Your task to perform on an android device: What's the weather today? Image 0: 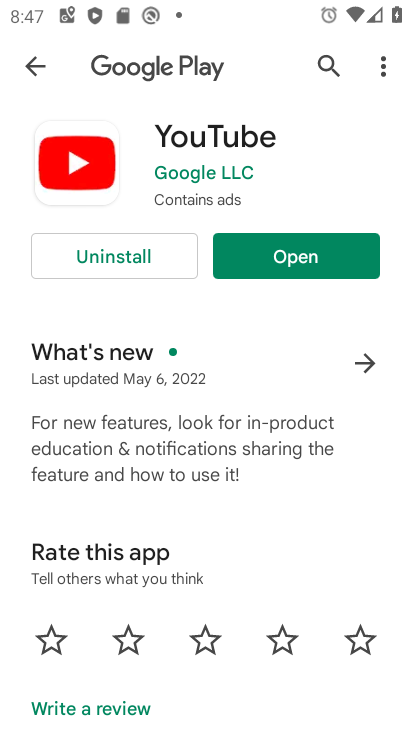
Step 0: press home button
Your task to perform on an android device: What's the weather today? Image 1: 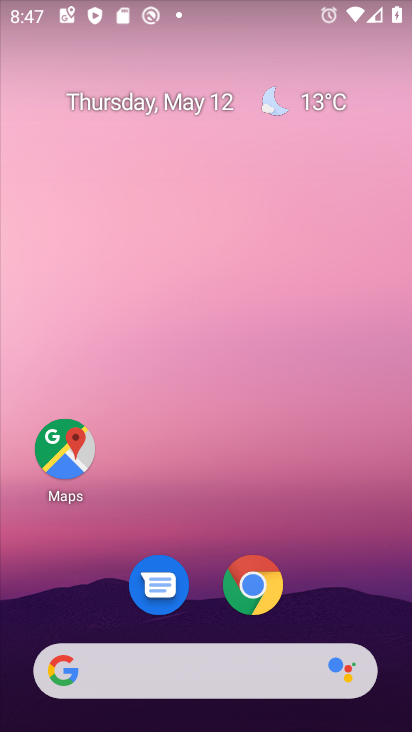
Step 1: click (302, 98)
Your task to perform on an android device: What's the weather today? Image 2: 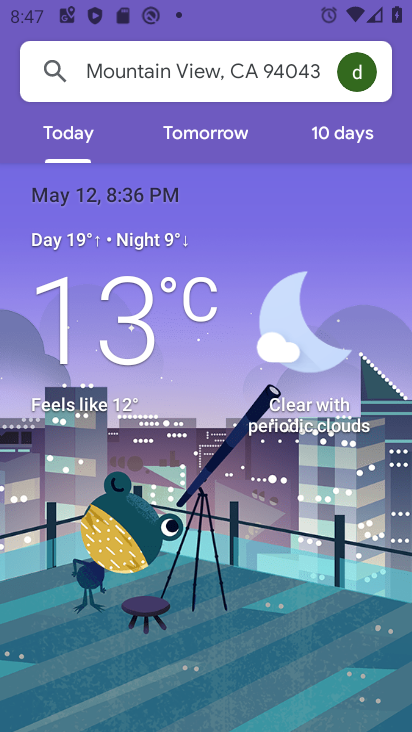
Step 2: task complete